Your task to perform on an android device: Open Chrome and go to the settings page Image 0: 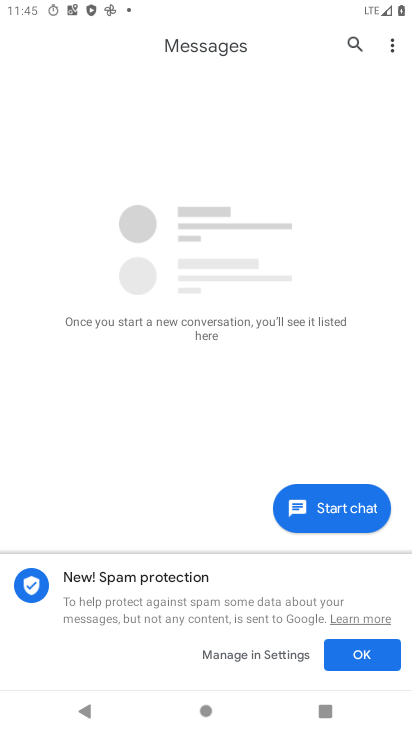
Step 0: press home button
Your task to perform on an android device: Open Chrome and go to the settings page Image 1: 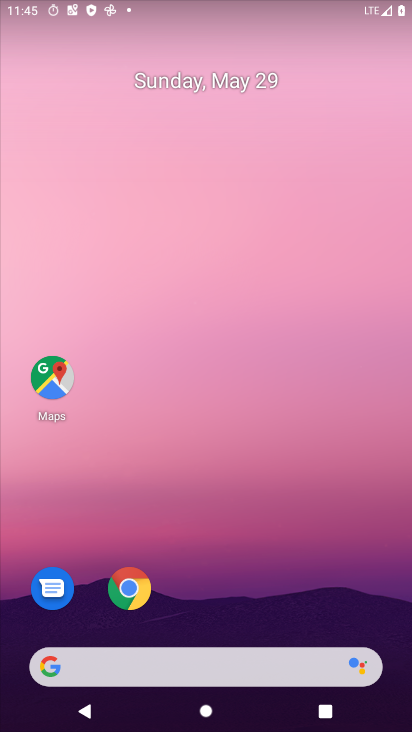
Step 1: click (214, 208)
Your task to perform on an android device: Open Chrome and go to the settings page Image 2: 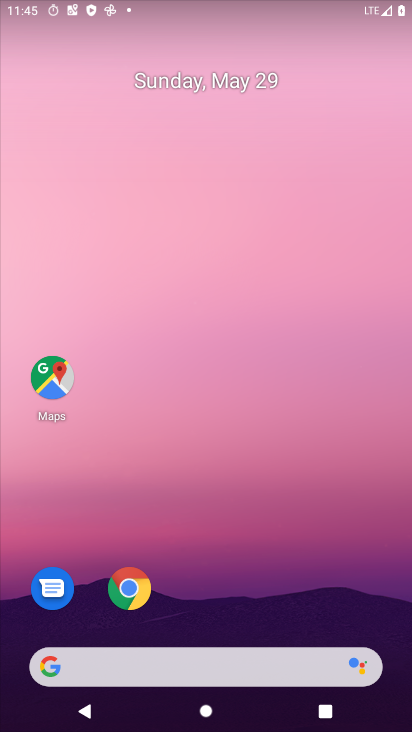
Step 2: drag from (209, 612) to (219, 184)
Your task to perform on an android device: Open Chrome and go to the settings page Image 3: 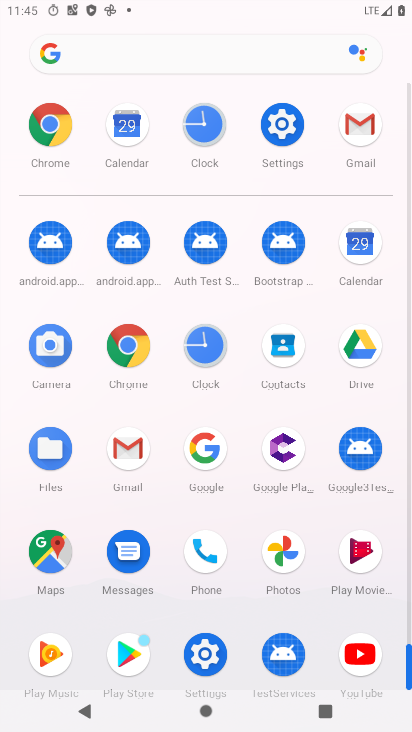
Step 3: click (125, 359)
Your task to perform on an android device: Open Chrome and go to the settings page Image 4: 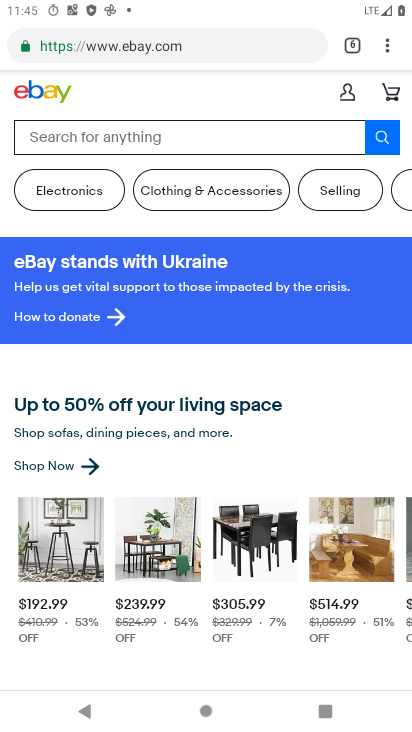
Step 4: click (387, 52)
Your task to perform on an android device: Open Chrome and go to the settings page Image 5: 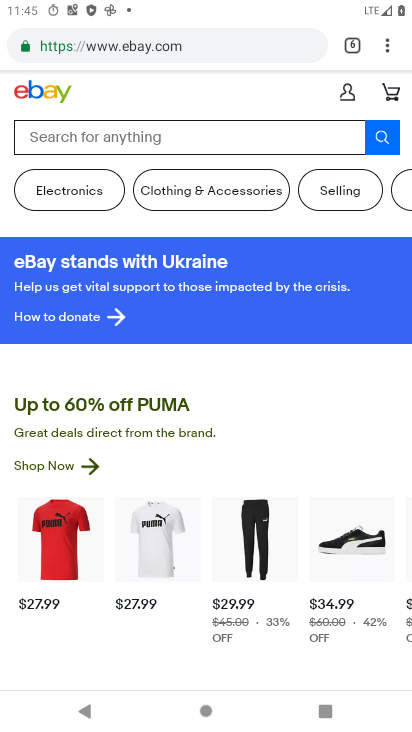
Step 5: click (391, 52)
Your task to perform on an android device: Open Chrome and go to the settings page Image 6: 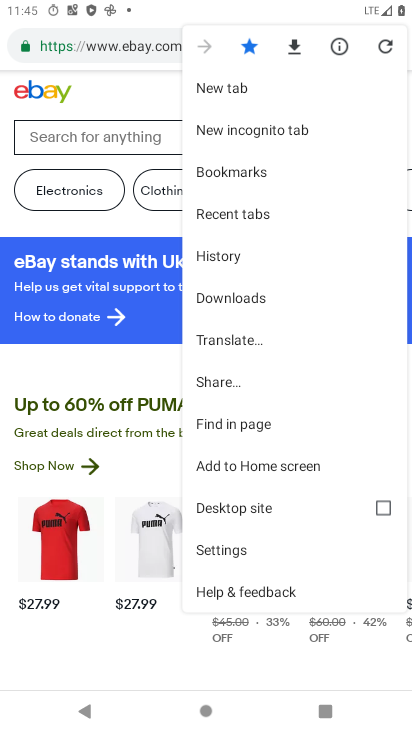
Step 6: click (241, 547)
Your task to perform on an android device: Open Chrome and go to the settings page Image 7: 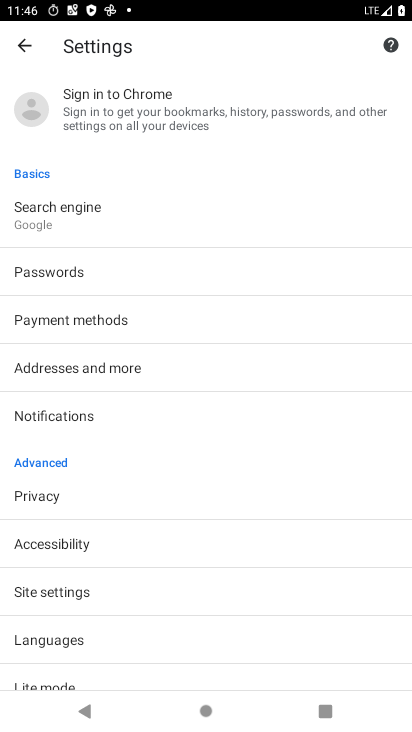
Step 7: task complete